Your task to perform on an android device: turn on bluetooth scan Image 0: 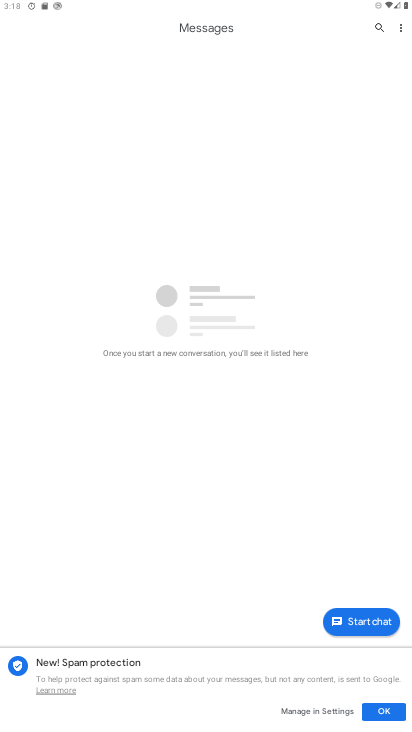
Step 0: drag from (150, 565) to (231, 321)
Your task to perform on an android device: turn on bluetooth scan Image 1: 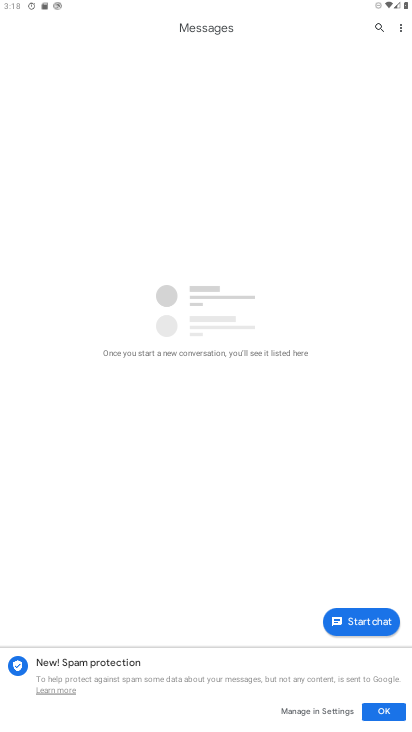
Step 1: press home button
Your task to perform on an android device: turn on bluetooth scan Image 2: 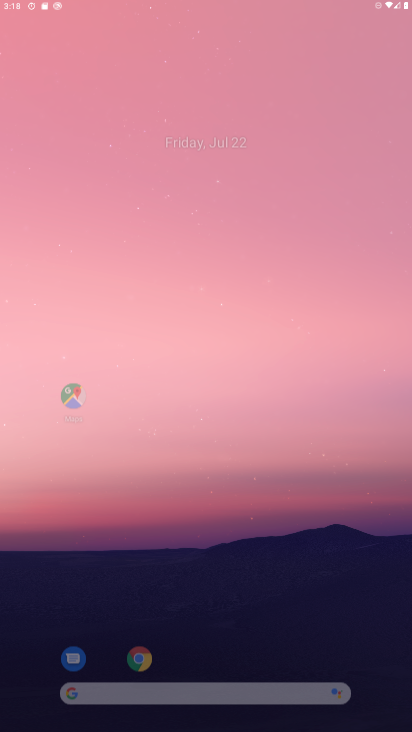
Step 2: drag from (150, 637) to (179, 326)
Your task to perform on an android device: turn on bluetooth scan Image 3: 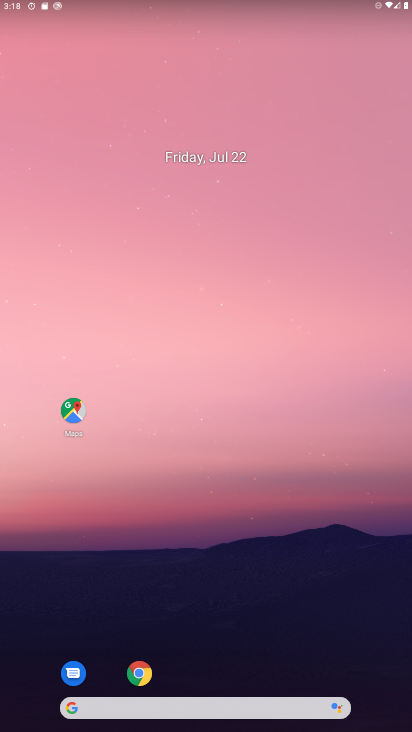
Step 3: drag from (206, 613) to (223, 237)
Your task to perform on an android device: turn on bluetooth scan Image 4: 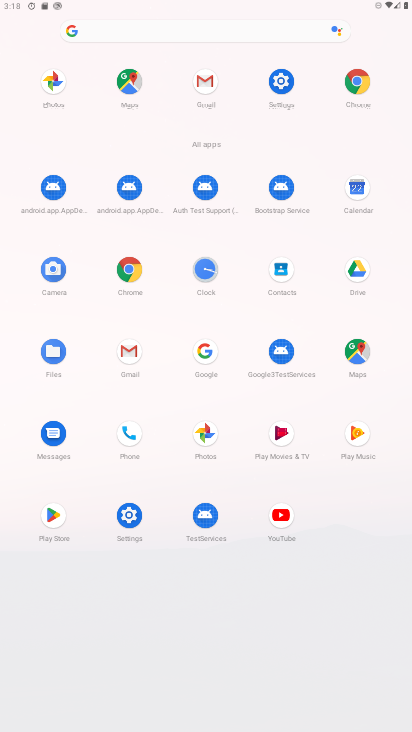
Step 4: click (283, 83)
Your task to perform on an android device: turn on bluetooth scan Image 5: 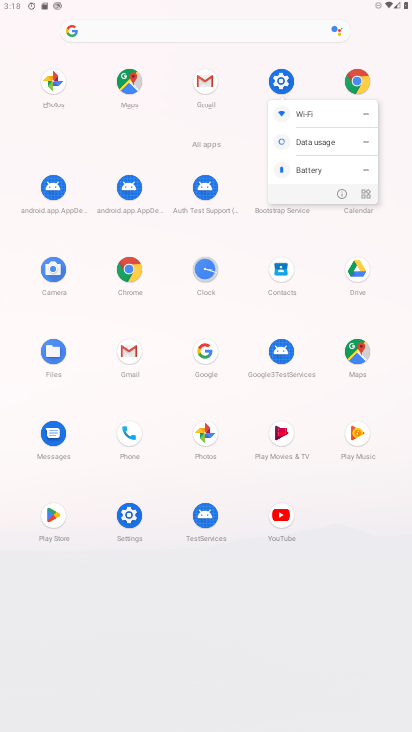
Step 5: click (338, 197)
Your task to perform on an android device: turn on bluetooth scan Image 6: 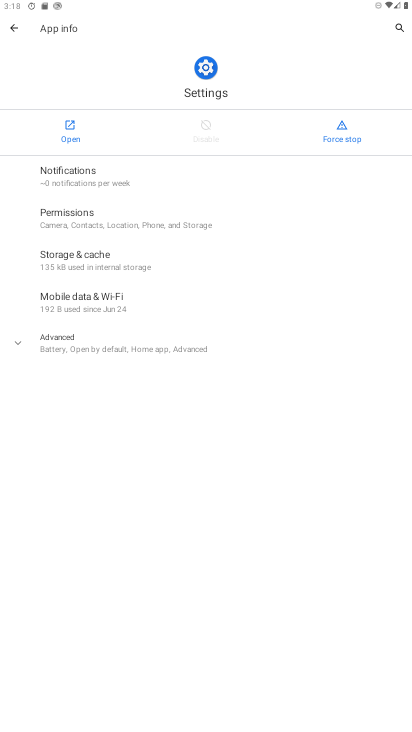
Step 6: click (74, 141)
Your task to perform on an android device: turn on bluetooth scan Image 7: 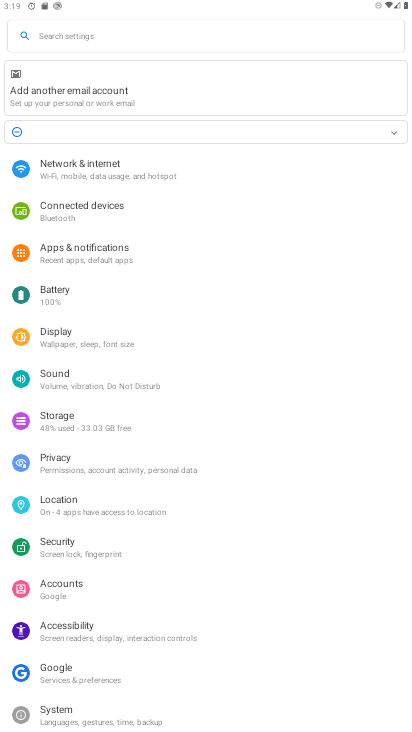
Step 7: click (95, 515)
Your task to perform on an android device: turn on bluetooth scan Image 8: 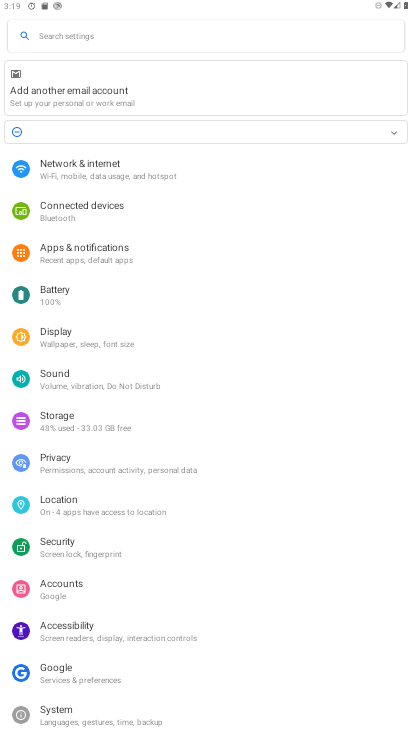
Step 8: click (60, 515)
Your task to perform on an android device: turn on bluetooth scan Image 9: 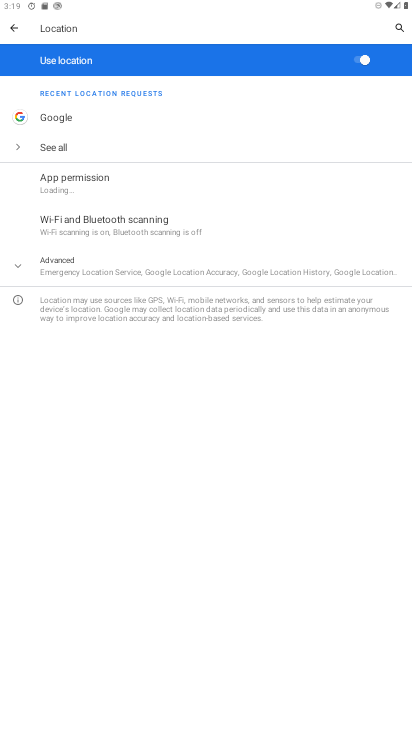
Step 9: click (106, 271)
Your task to perform on an android device: turn on bluetooth scan Image 10: 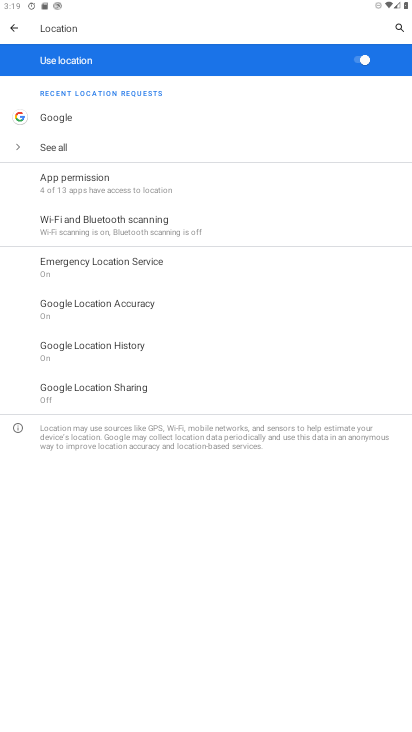
Step 10: click (134, 227)
Your task to perform on an android device: turn on bluetooth scan Image 11: 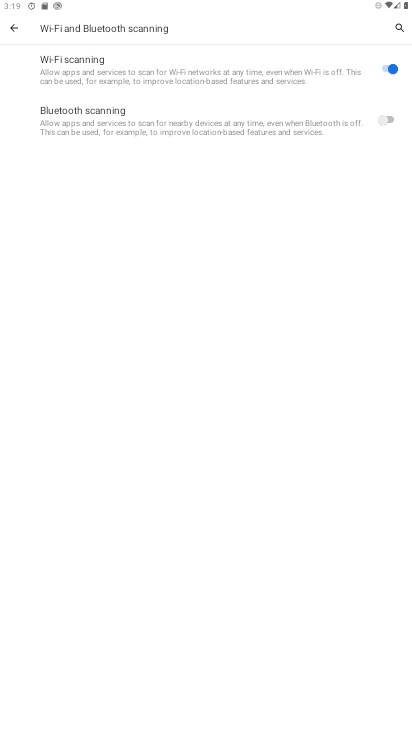
Step 11: click (230, 124)
Your task to perform on an android device: turn on bluetooth scan Image 12: 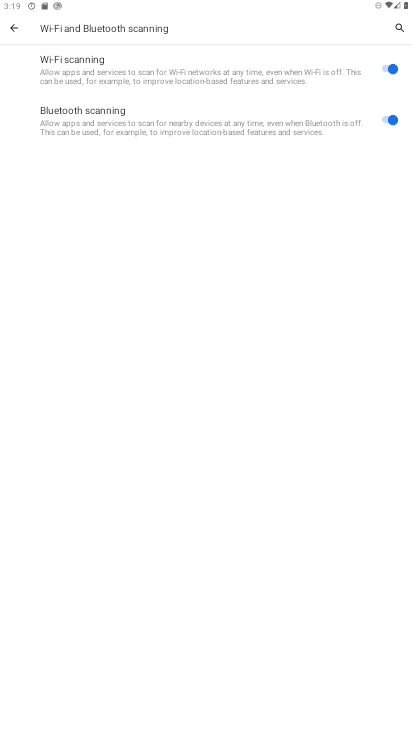
Step 12: task complete